Your task to perform on an android device: find snoozed emails in the gmail app Image 0: 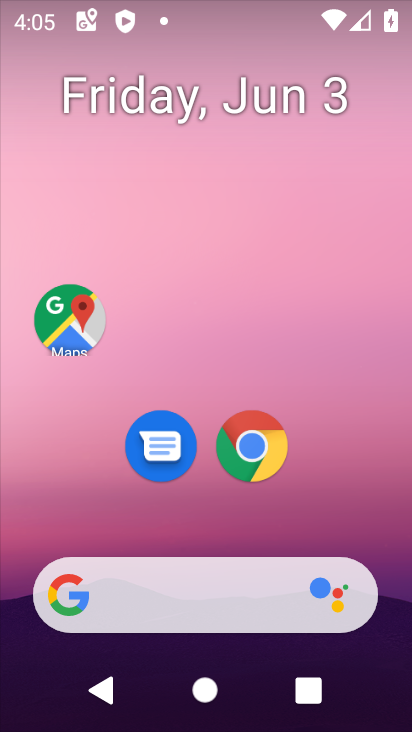
Step 0: task complete